Your task to perform on an android device: Open the calendar and show me this week's events? Image 0: 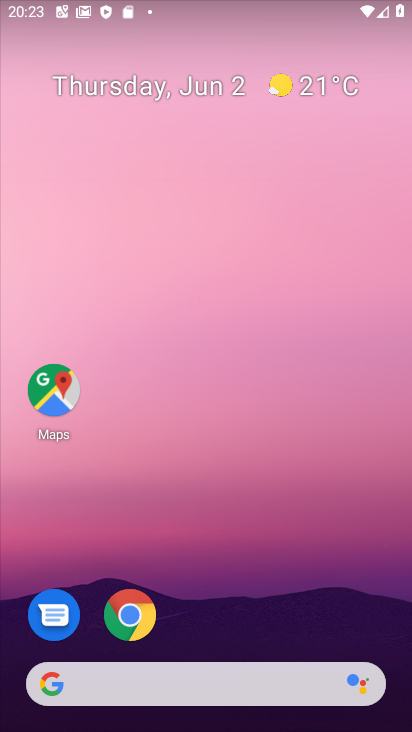
Step 0: task complete